Your task to perform on an android device: Go to ESPN.com Image 0: 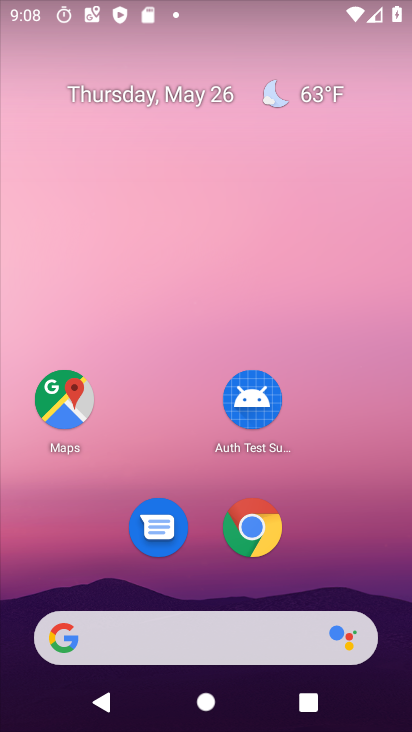
Step 0: drag from (363, 508) to (334, 11)
Your task to perform on an android device: Go to ESPN.com Image 1: 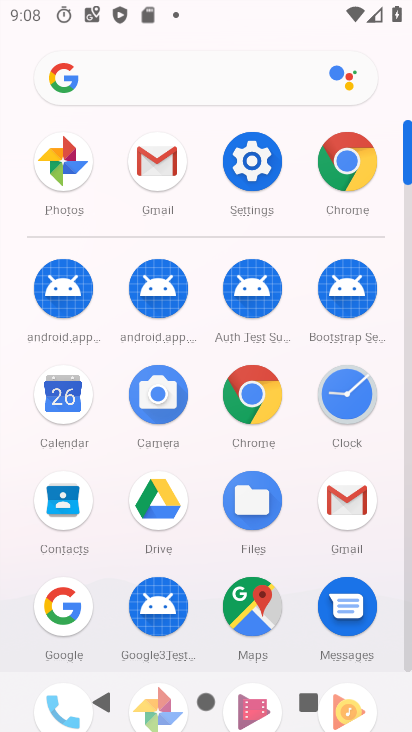
Step 1: click (360, 227)
Your task to perform on an android device: Go to ESPN.com Image 2: 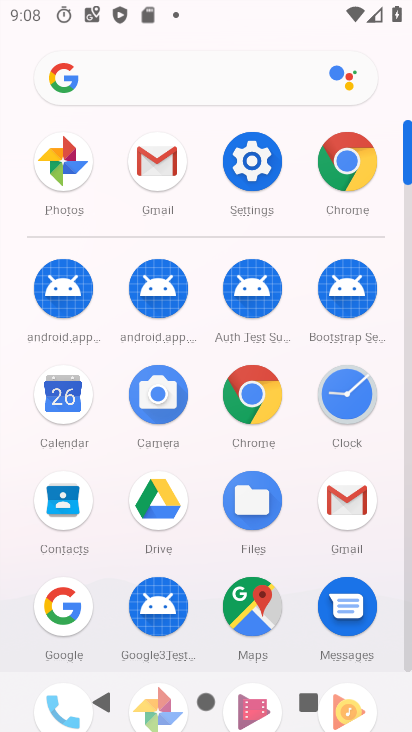
Step 2: click (344, 169)
Your task to perform on an android device: Go to ESPN.com Image 3: 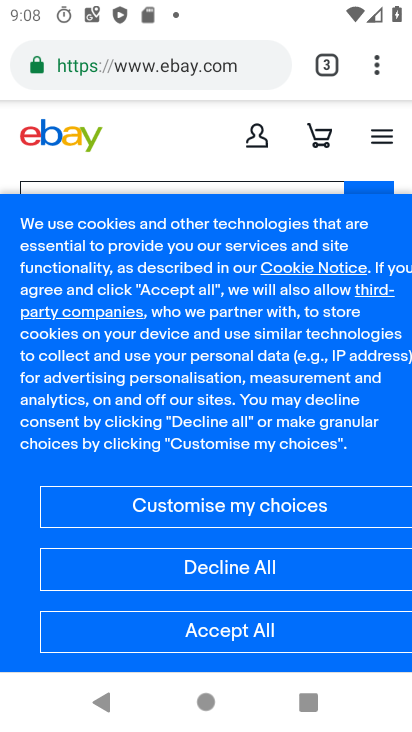
Step 3: click (180, 63)
Your task to perform on an android device: Go to ESPN.com Image 4: 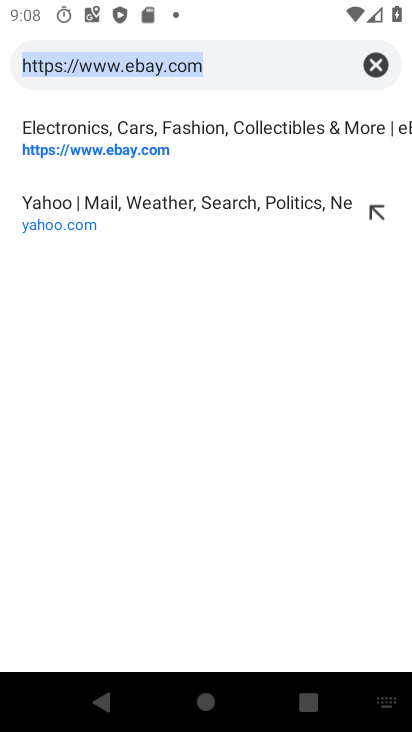
Step 4: click (385, 64)
Your task to perform on an android device: Go to ESPN.com Image 5: 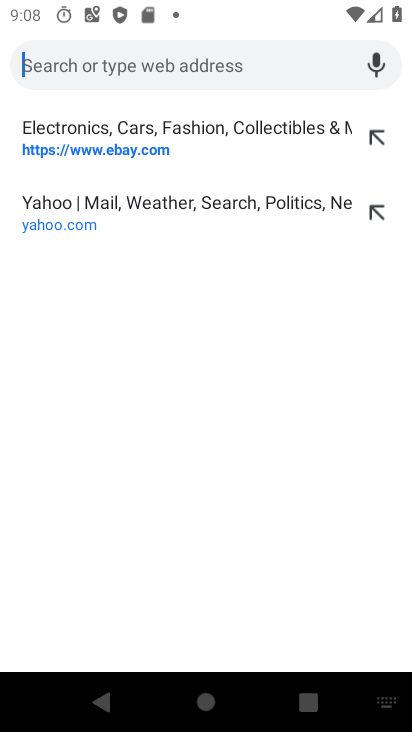
Step 5: type "espn"
Your task to perform on an android device: Go to ESPN.com Image 6: 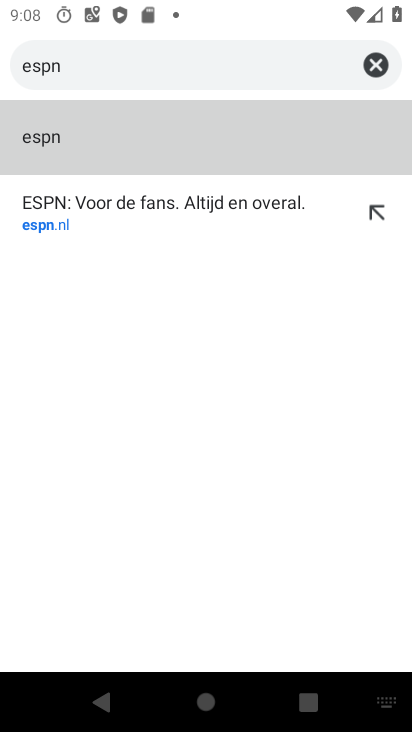
Step 6: click (126, 209)
Your task to perform on an android device: Go to ESPN.com Image 7: 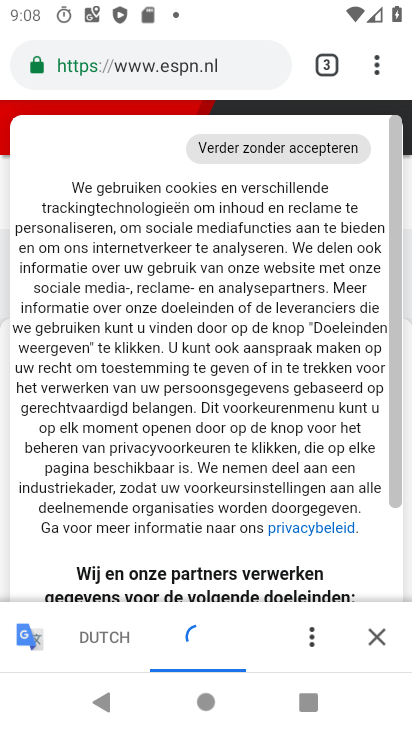
Step 7: task complete